Your task to perform on an android device: change the clock display to show seconds Image 0: 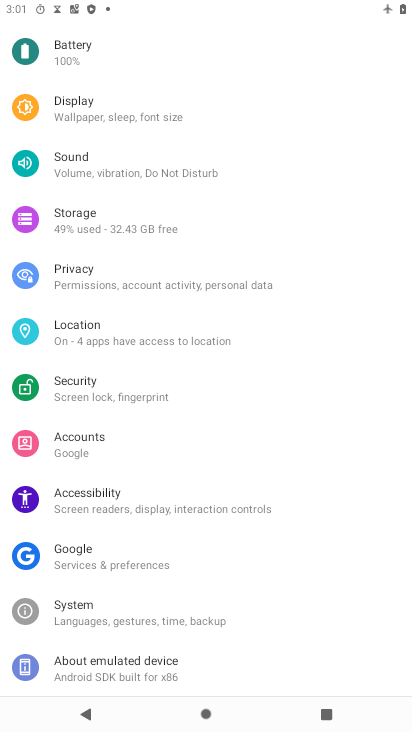
Step 0: press home button
Your task to perform on an android device: change the clock display to show seconds Image 1: 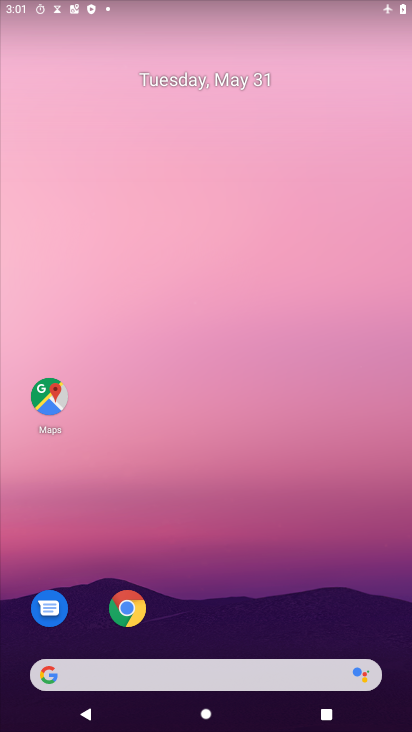
Step 1: drag from (236, 609) to (290, 207)
Your task to perform on an android device: change the clock display to show seconds Image 2: 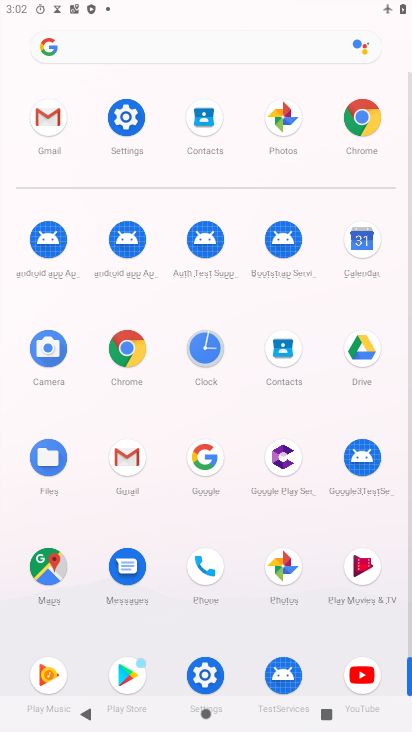
Step 2: click (206, 364)
Your task to perform on an android device: change the clock display to show seconds Image 3: 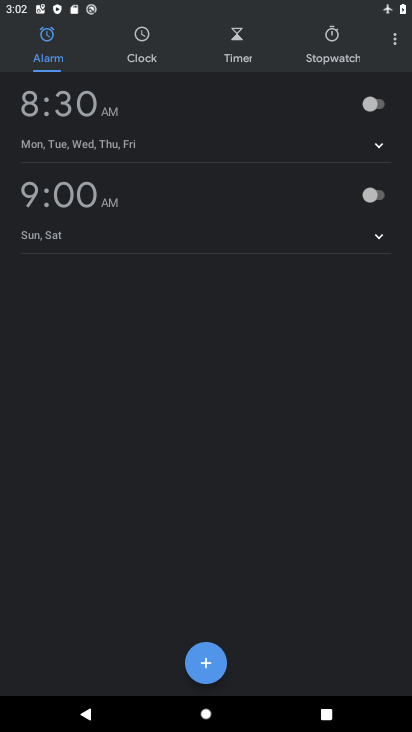
Step 3: click (391, 39)
Your task to perform on an android device: change the clock display to show seconds Image 4: 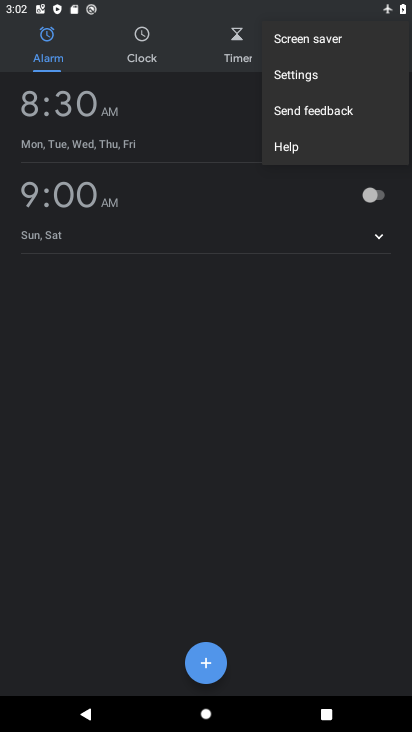
Step 4: click (308, 79)
Your task to perform on an android device: change the clock display to show seconds Image 5: 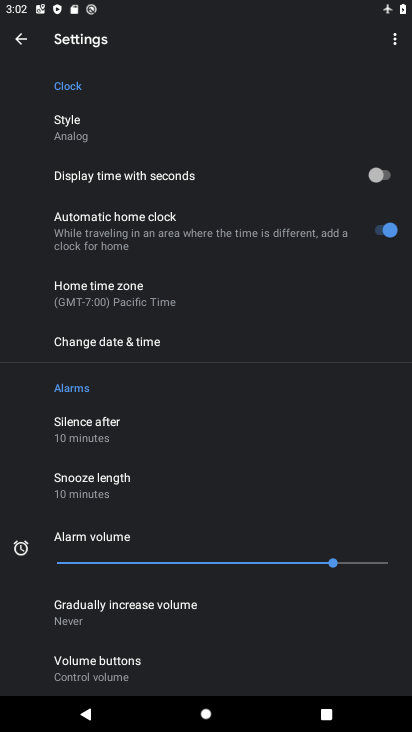
Step 5: click (102, 139)
Your task to perform on an android device: change the clock display to show seconds Image 6: 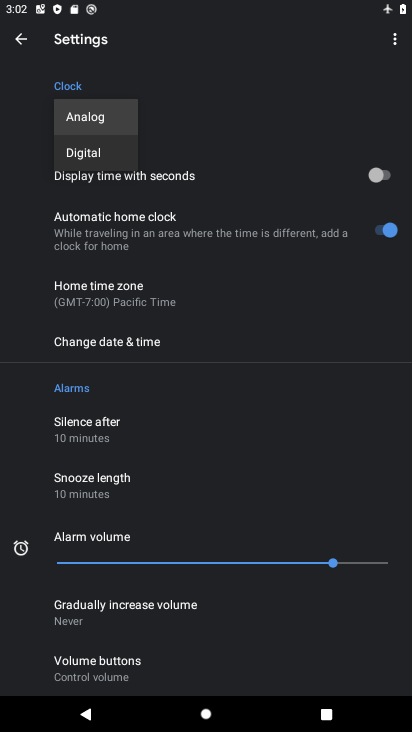
Step 6: click (116, 163)
Your task to perform on an android device: change the clock display to show seconds Image 7: 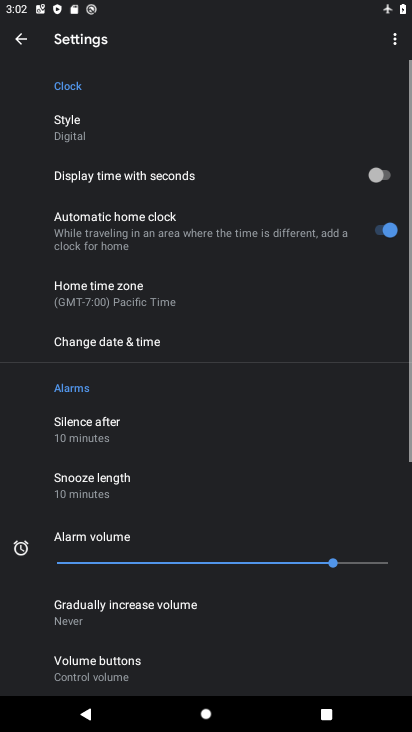
Step 7: click (368, 179)
Your task to perform on an android device: change the clock display to show seconds Image 8: 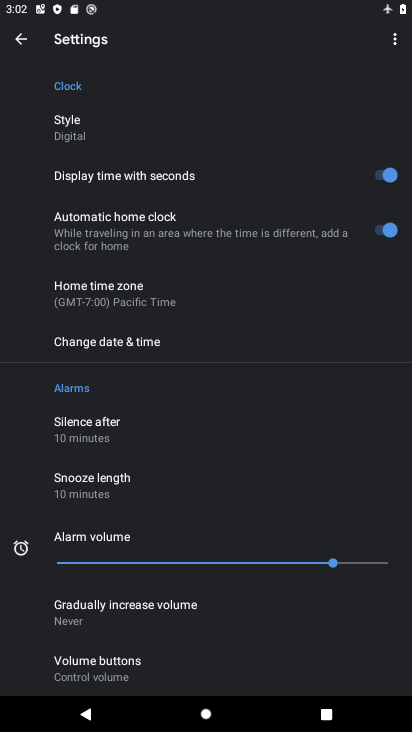
Step 8: task complete